Your task to perform on an android device: remove spam from my inbox in the gmail app Image 0: 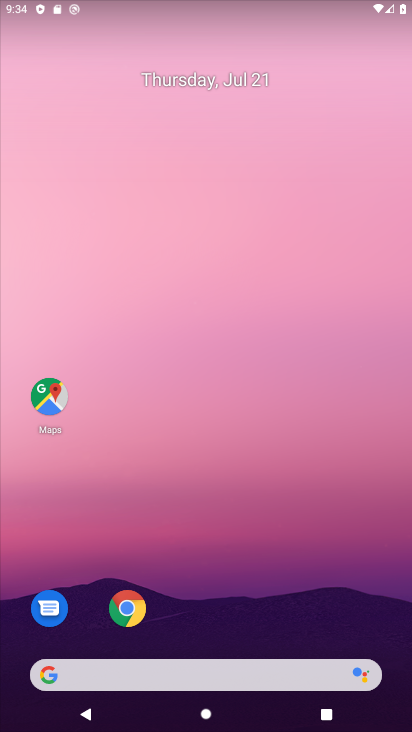
Step 0: drag from (221, 658) to (211, 123)
Your task to perform on an android device: remove spam from my inbox in the gmail app Image 1: 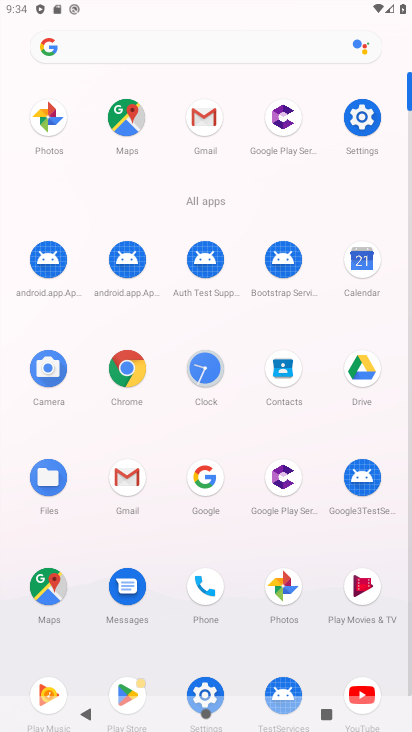
Step 1: click (125, 491)
Your task to perform on an android device: remove spam from my inbox in the gmail app Image 2: 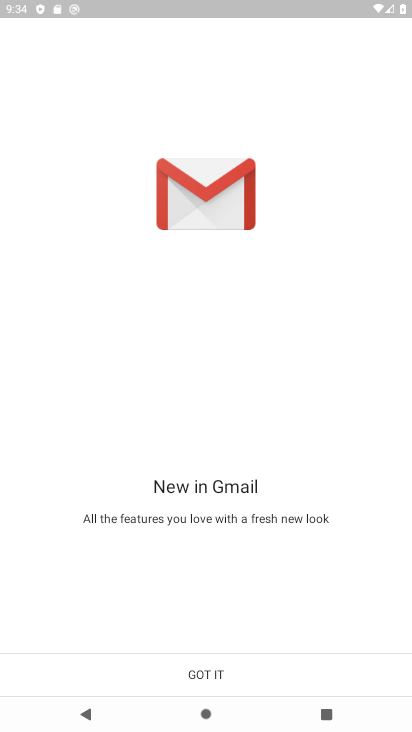
Step 2: click (258, 671)
Your task to perform on an android device: remove spam from my inbox in the gmail app Image 3: 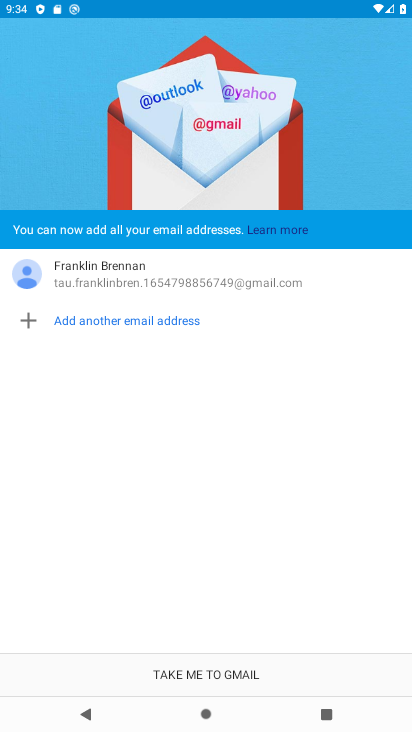
Step 3: click (194, 665)
Your task to perform on an android device: remove spam from my inbox in the gmail app Image 4: 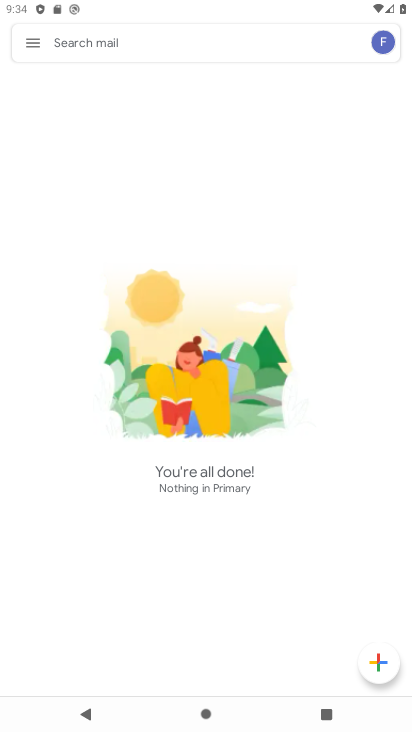
Step 4: click (37, 41)
Your task to perform on an android device: remove spam from my inbox in the gmail app Image 5: 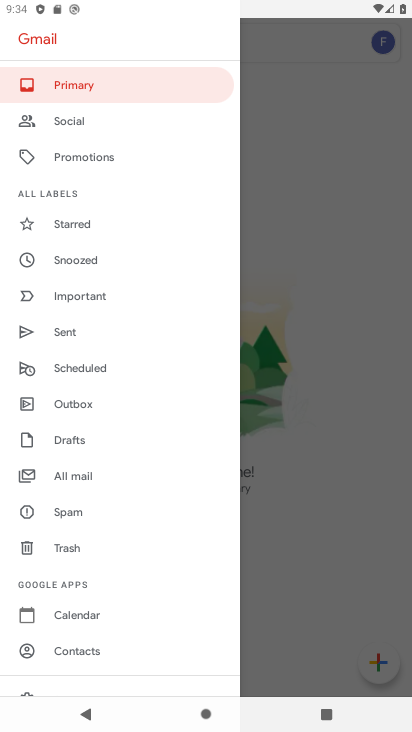
Step 5: drag from (75, 621) to (57, 154)
Your task to perform on an android device: remove spam from my inbox in the gmail app Image 6: 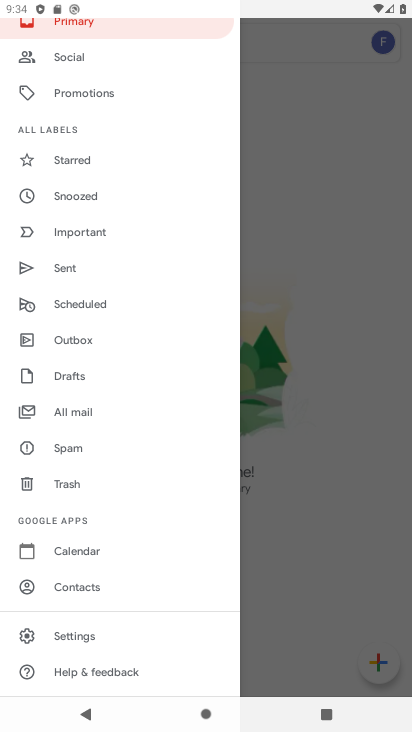
Step 6: click (83, 448)
Your task to perform on an android device: remove spam from my inbox in the gmail app Image 7: 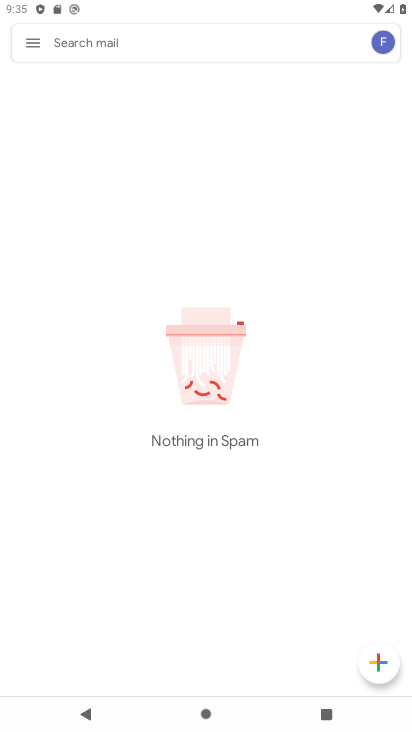
Step 7: task complete